Your task to perform on an android device: delete browsing data in the chrome app Image 0: 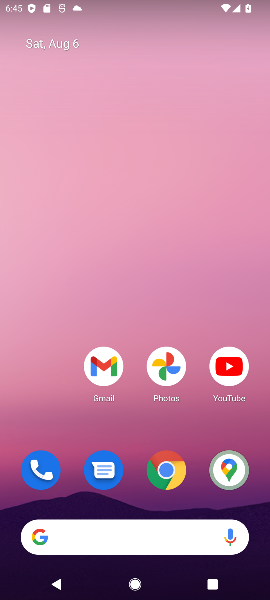
Step 0: click (153, 481)
Your task to perform on an android device: delete browsing data in the chrome app Image 1: 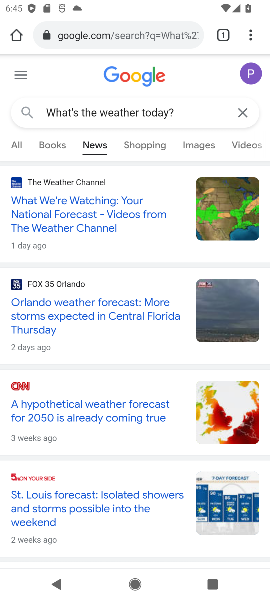
Step 1: click (252, 30)
Your task to perform on an android device: delete browsing data in the chrome app Image 2: 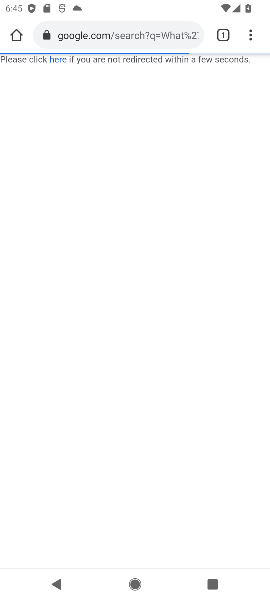
Step 2: drag from (252, 30) to (131, 472)
Your task to perform on an android device: delete browsing data in the chrome app Image 3: 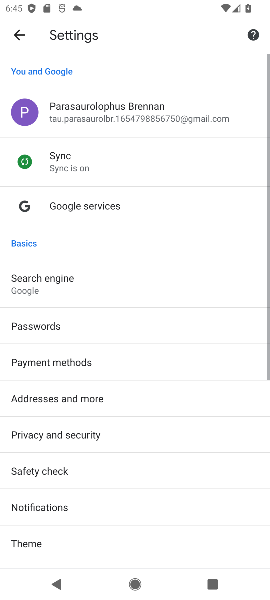
Step 3: drag from (163, 151) to (144, 304)
Your task to perform on an android device: delete browsing data in the chrome app Image 4: 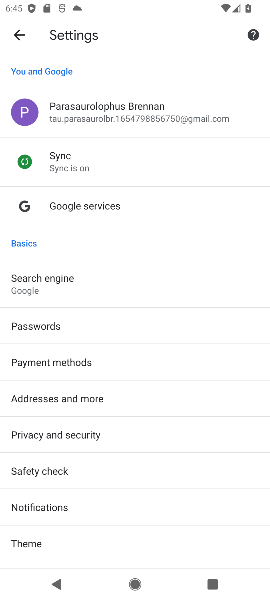
Step 4: drag from (101, 508) to (123, 300)
Your task to perform on an android device: delete browsing data in the chrome app Image 5: 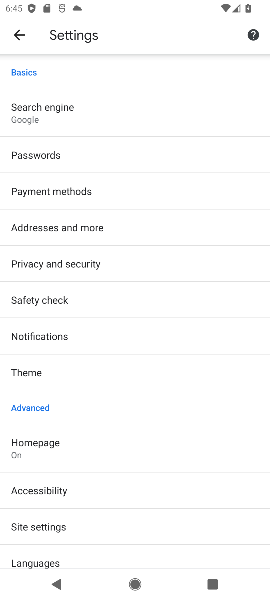
Step 5: click (123, 300)
Your task to perform on an android device: delete browsing data in the chrome app Image 6: 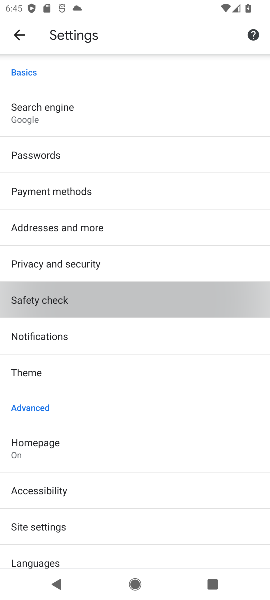
Step 6: click (123, 300)
Your task to perform on an android device: delete browsing data in the chrome app Image 7: 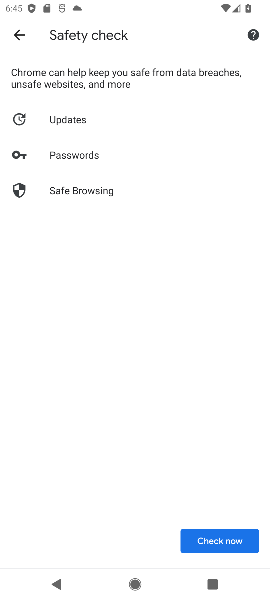
Step 7: press back button
Your task to perform on an android device: delete browsing data in the chrome app Image 8: 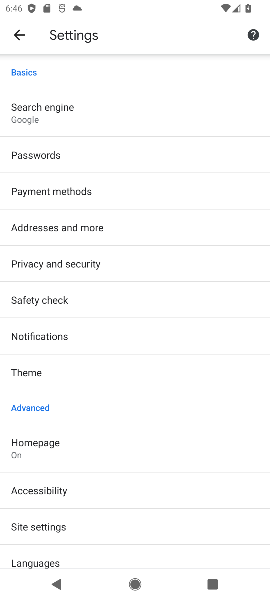
Step 8: click (84, 270)
Your task to perform on an android device: delete browsing data in the chrome app Image 9: 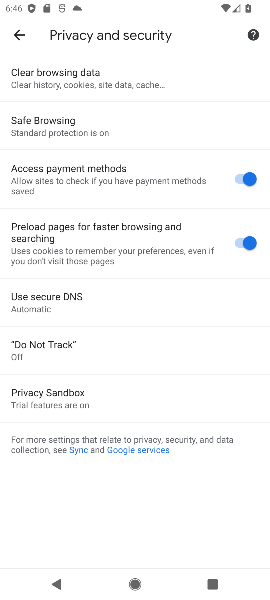
Step 9: click (101, 76)
Your task to perform on an android device: delete browsing data in the chrome app Image 10: 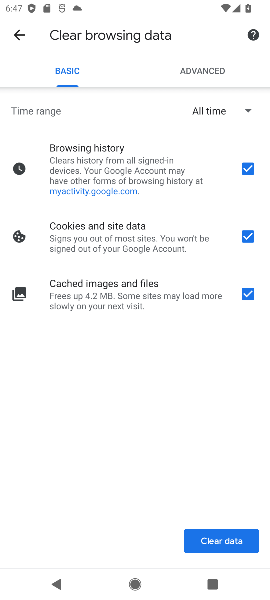
Step 10: click (233, 549)
Your task to perform on an android device: delete browsing data in the chrome app Image 11: 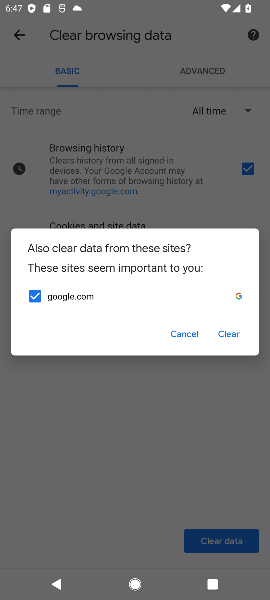
Step 11: click (216, 335)
Your task to perform on an android device: delete browsing data in the chrome app Image 12: 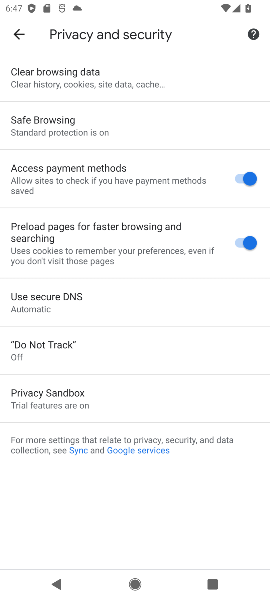
Step 12: task complete